Your task to perform on an android device: Play the last video I watched on Youtube Image 0: 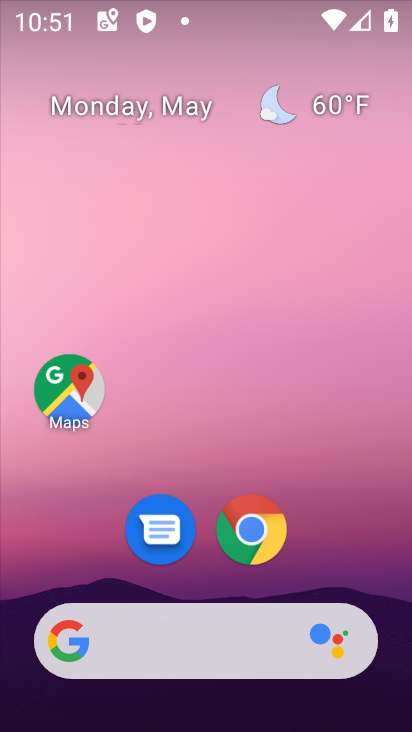
Step 0: drag from (359, 527) to (312, 40)
Your task to perform on an android device: Play the last video I watched on Youtube Image 1: 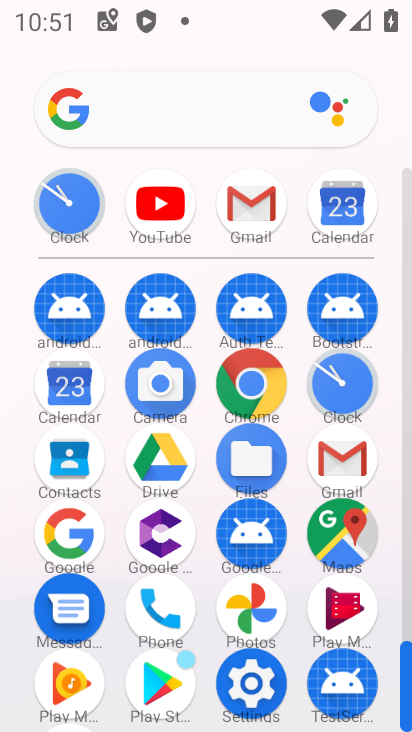
Step 1: drag from (115, 665) to (115, 287)
Your task to perform on an android device: Play the last video I watched on Youtube Image 2: 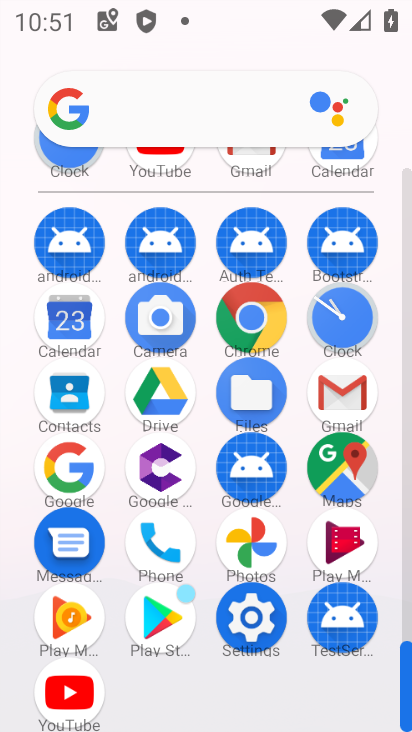
Step 2: click (71, 687)
Your task to perform on an android device: Play the last video I watched on Youtube Image 3: 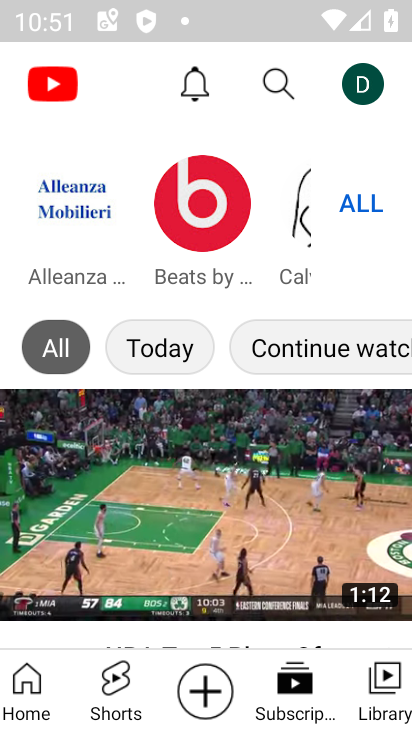
Step 3: click (390, 680)
Your task to perform on an android device: Play the last video I watched on Youtube Image 4: 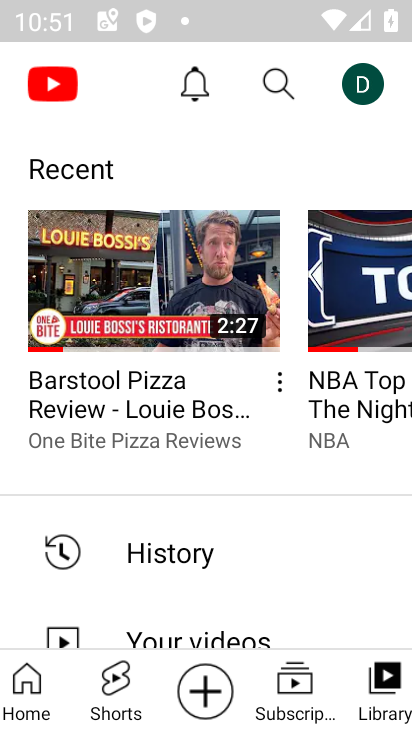
Step 4: click (148, 291)
Your task to perform on an android device: Play the last video I watched on Youtube Image 5: 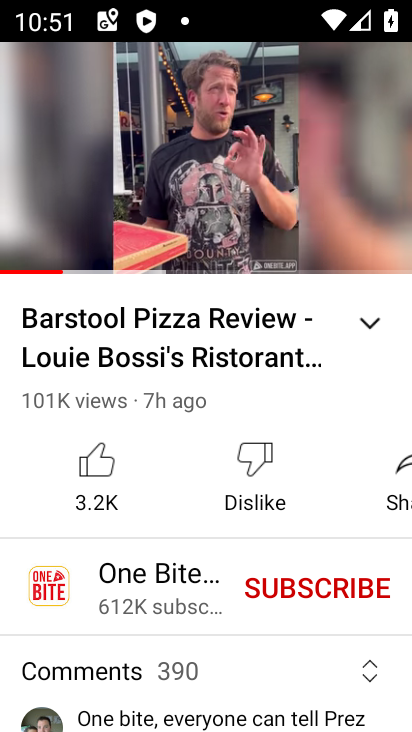
Step 5: task complete